Your task to perform on an android device: toggle notifications settings in the gmail app Image 0: 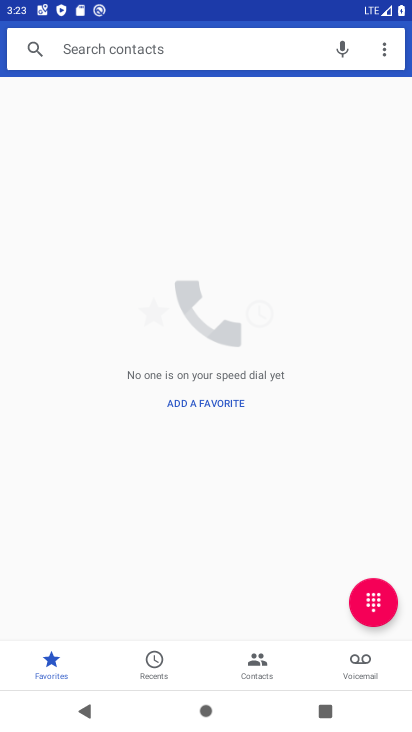
Step 0: press home button
Your task to perform on an android device: toggle notifications settings in the gmail app Image 1: 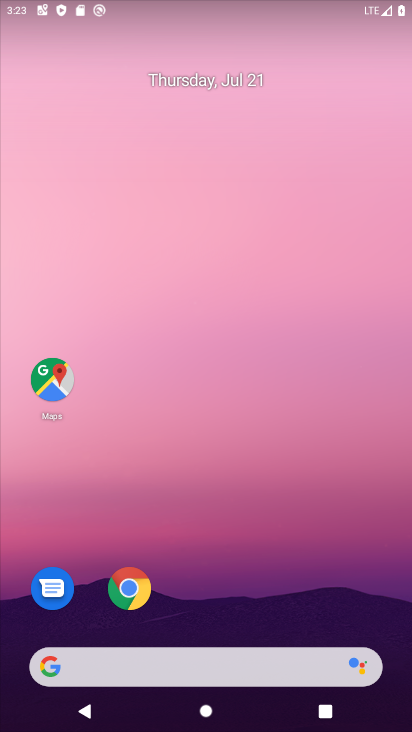
Step 1: drag from (295, 620) to (358, 192)
Your task to perform on an android device: toggle notifications settings in the gmail app Image 2: 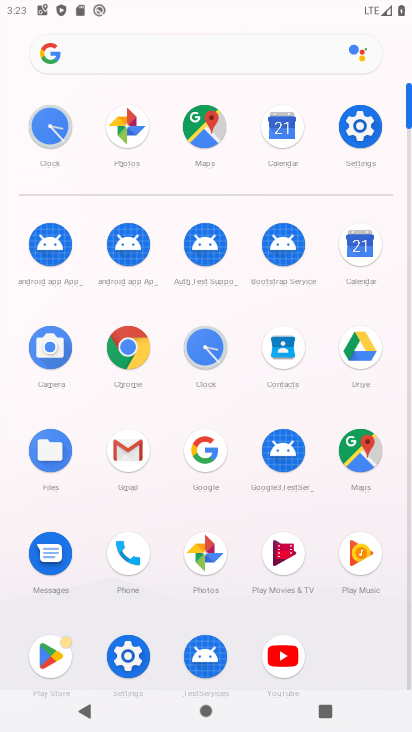
Step 2: click (122, 452)
Your task to perform on an android device: toggle notifications settings in the gmail app Image 3: 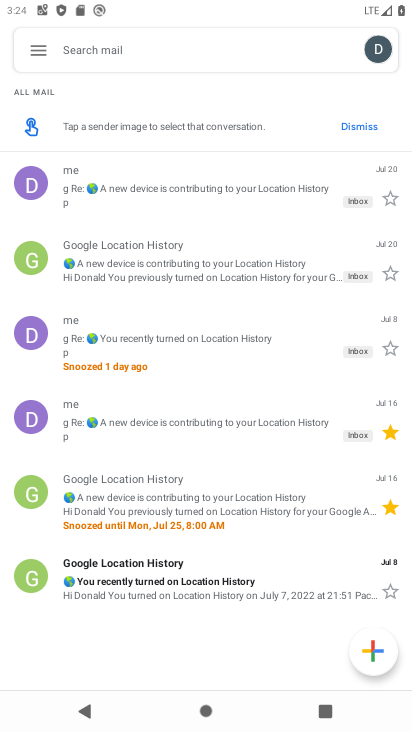
Step 3: click (39, 38)
Your task to perform on an android device: toggle notifications settings in the gmail app Image 4: 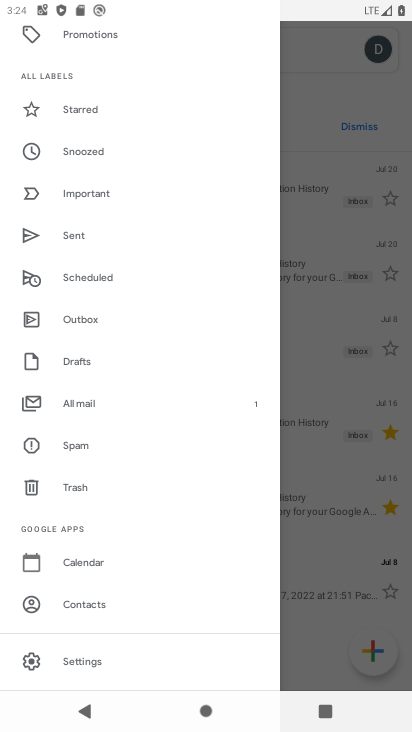
Step 4: click (101, 647)
Your task to perform on an android device: toggle notifications settings in the gmail app Image 5: 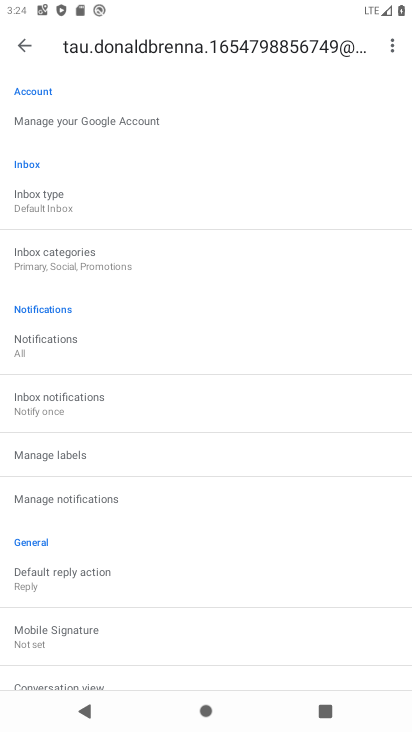
Step 5: click (119, 497)
Your task to perform on an android device: toggle notifications settings in the gmail app Image 6: 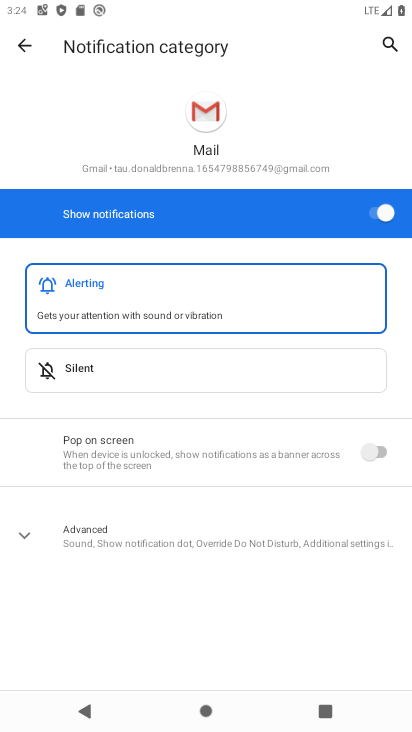
Step 6: click (377, 218)
Your task to perform on an android device: toggle notifications settings in the gmail app Image 7: 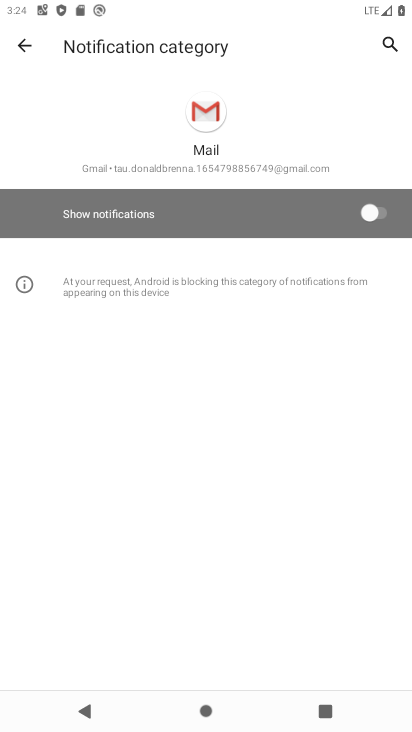
Step 7: task complete